Your task to perform on an android device: Open the phone app and click the voicemail tab. Image 0: 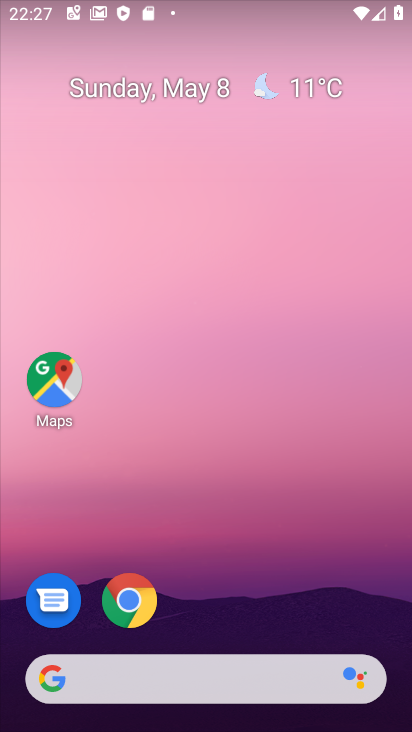
Step 0: drag from (203, 635) to (224, 98)
Your task to perform on an android device: Open the phone app and click the voicemail tab. Image 1: 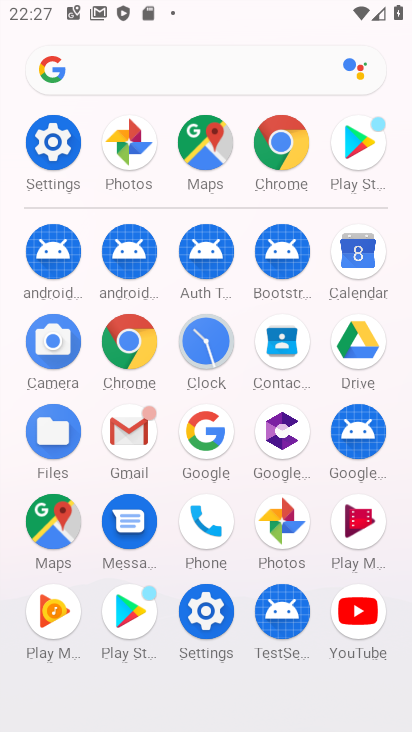
Step 1: click (206, 525)
Your task to perform on an android device: Open the phone app and click the voicemail tab. Image 2: 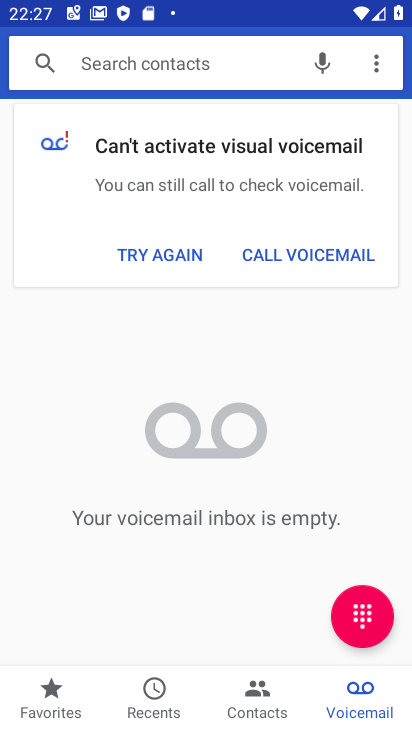
Step 2: task complete